Your task to perform on an android device: turn off notifications in google photos Image 0: 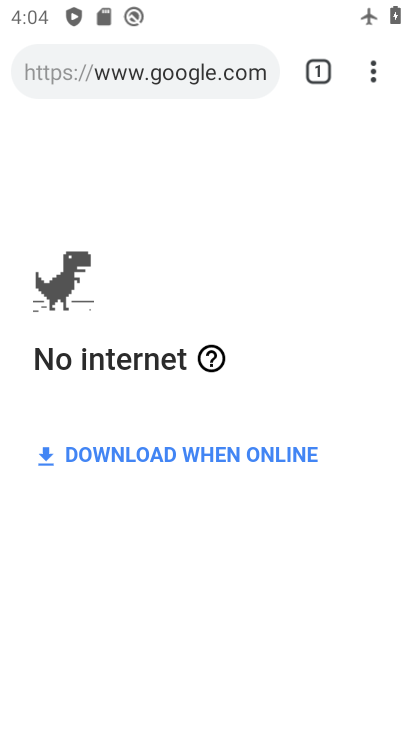
Step 0: press home button
Your task to perform on an android device: turn off notifications in google photos Image 1: 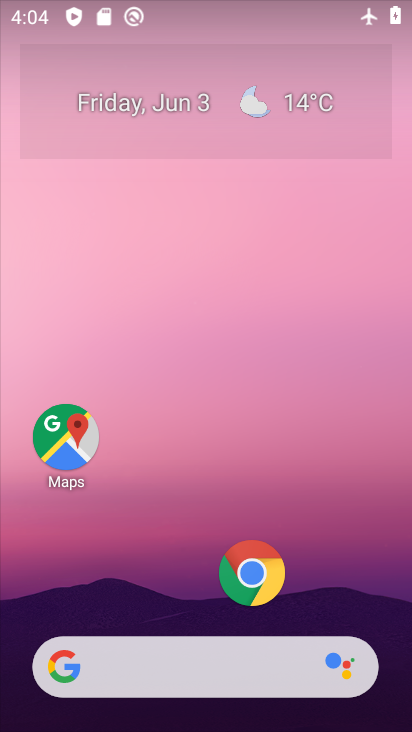
Step 1: drag from (183, 481) to (221, 355)
Your task to perform on an android device: turn off notifications in google photos Image 2: 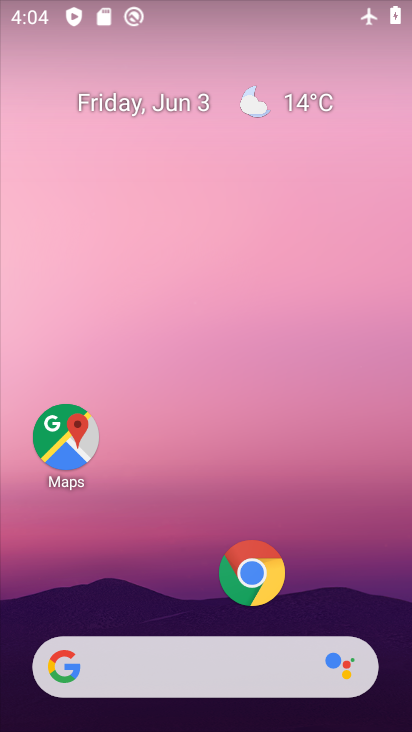
Step 2: drag from (167, 560) to (229, 97)
Your task to perform on an android device: turn off notifications in google photos Image 3: 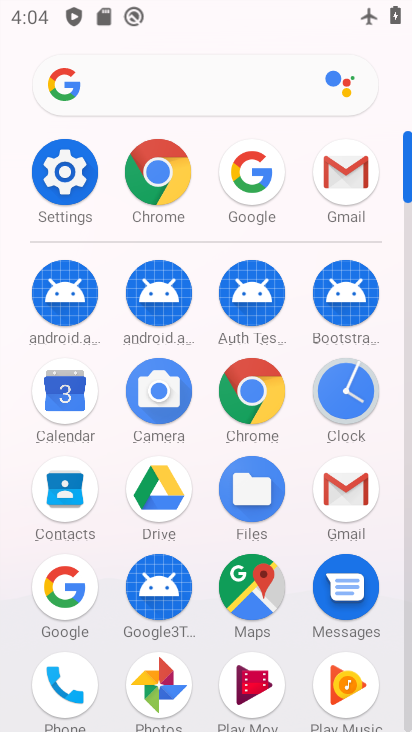
Step 3: click (169, 691)
Your task to perform on an android device: turn off notifications in google photos Image 4: 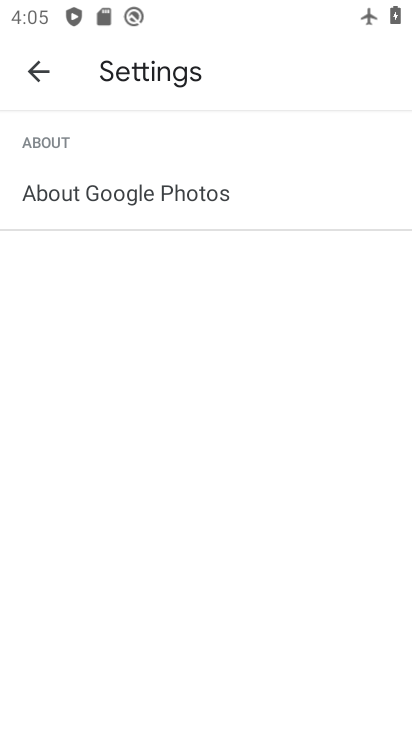
Step 4: click (47, 75)
Your task to perform on an android device: turn off notifications in google photos Image 5: 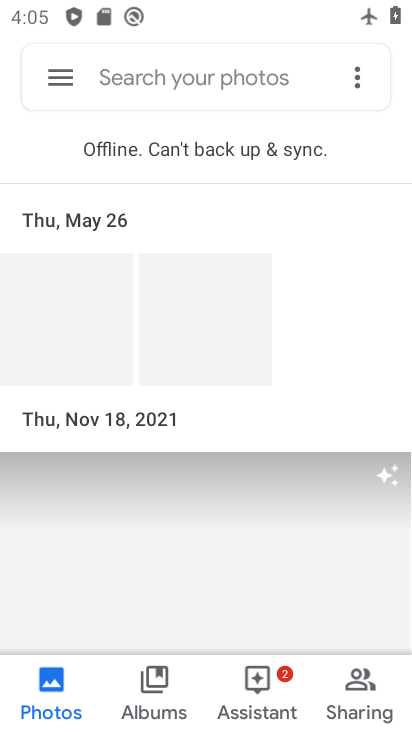
Step 5: click (59, 76)
Your task to perform on an android device: turn off notifications in google photos Image 6: 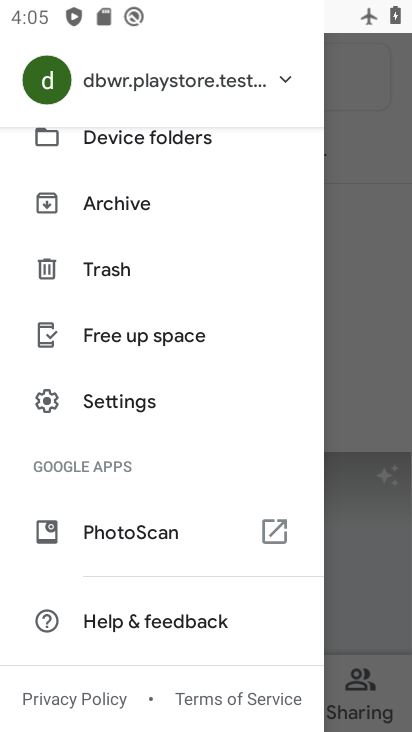
Step 6: click (92, 408)
Your task to perform on an android device: turn off notifications in google photos Image 7: 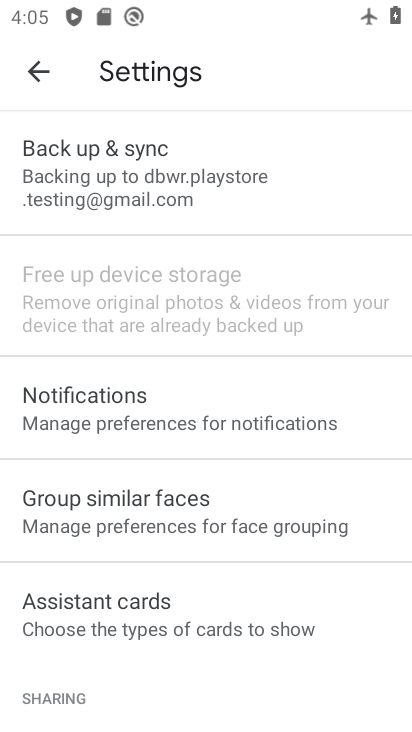
Step 7: click (151, 413)
Your task to perform on an android device: turn off notifications in google photos Image 8: 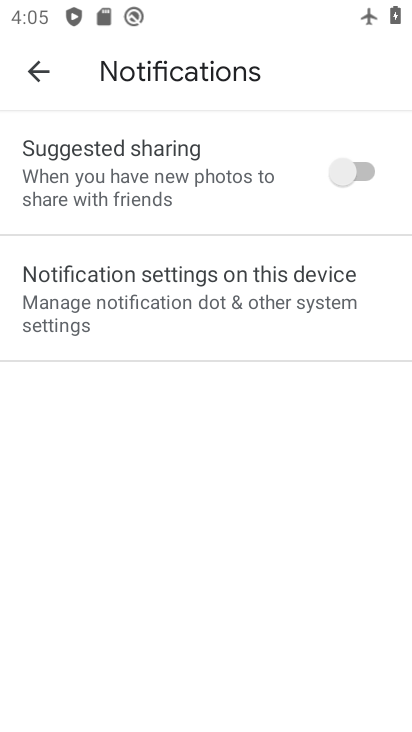
Step 8: click (178, 292)
Your task to perform on an android device: turn off notifications in google photos Image 9: 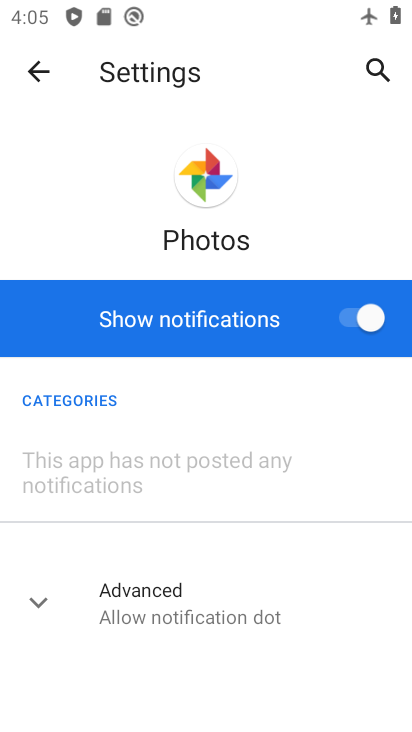
Step 9: click (266, 288)
Your task to perform on an android device: turn off notifications in google photos Image 10: 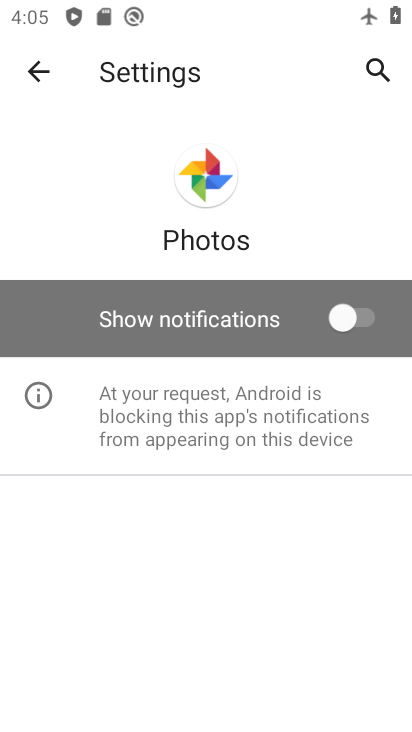
Step 10: task complete